Your task to perform on an android device: Open Google Maps Image 0: 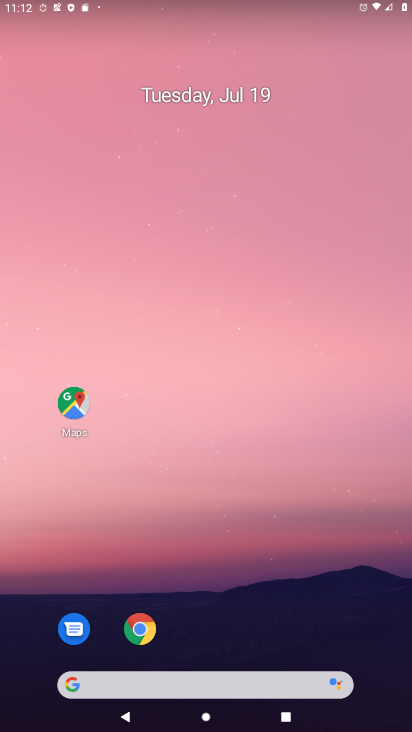
Step 0: drag from (248, 638) to (255, 200)
Your task to perform on an android device: Open Google Maps Image 1: 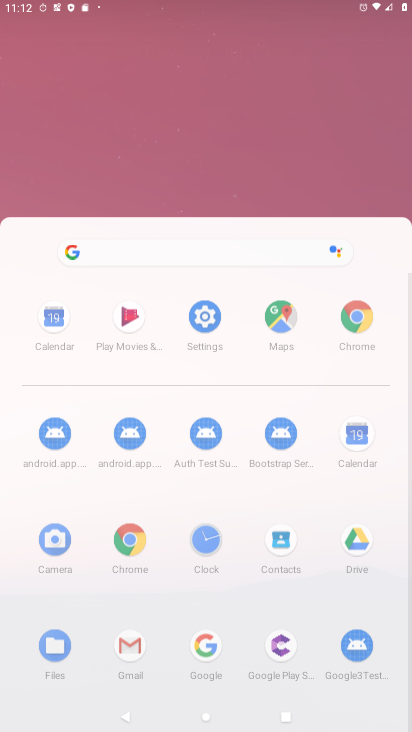
Step 1: drag from (173, 468) to (138, 149)
Your task to perform on an android device: Open Google Maps Image 2: 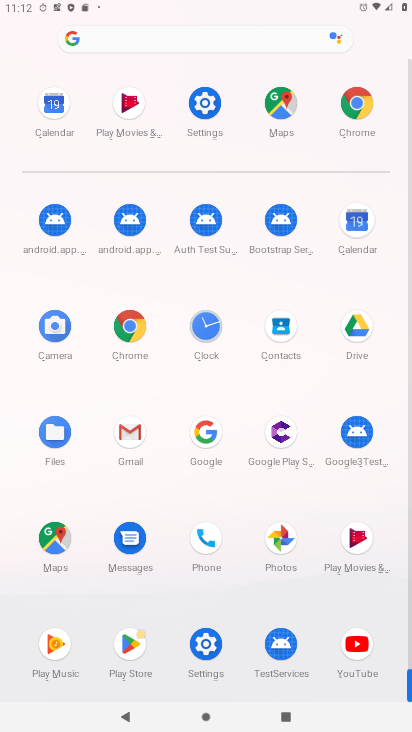
Step 2: click (275, 113)
Your task to perform on an android device: Open Google Maps Image 3: 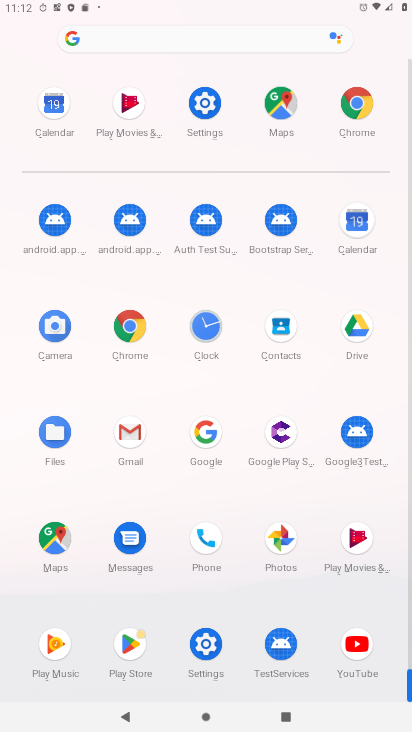
Step 3: click (278, 116)
Your task to perform on an android device: Open Google Maps Image 4: 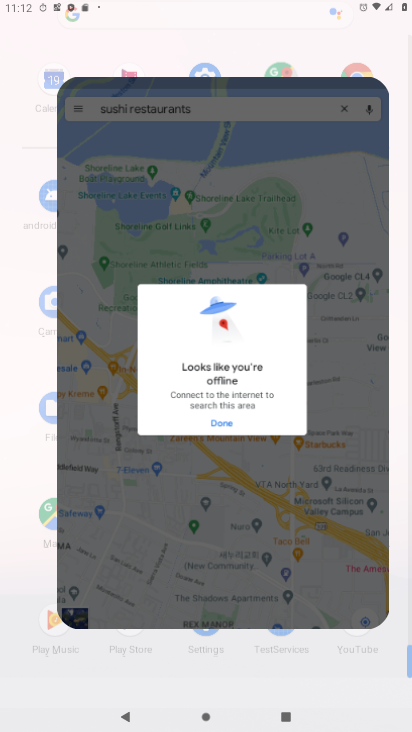
Step 4: click (279, 116)
Your task to perform on an android device: Open Google Maps Image 5: 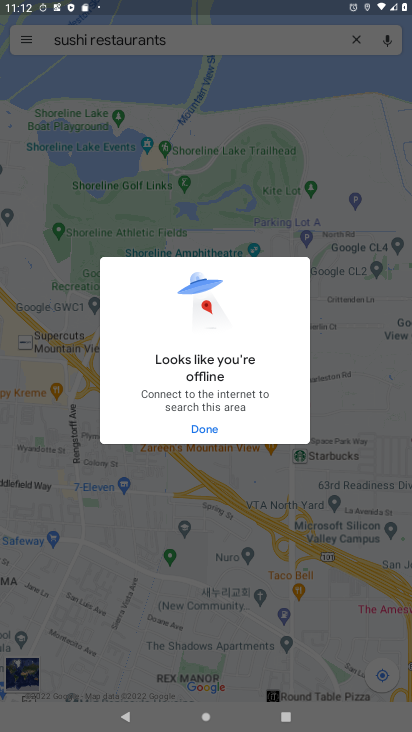
Step 5: click (248, 189)
Your task to perform on an android device: Open Google Maps Image 6: 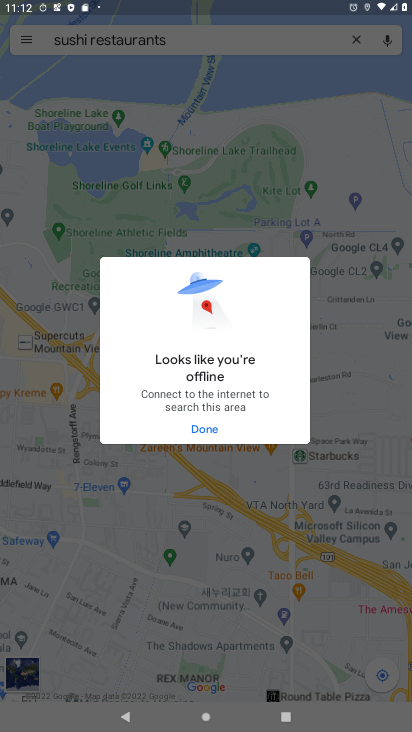
Step 6: click (249, 189)
Your task to perform on an android device: Open Google Maps Image 7: 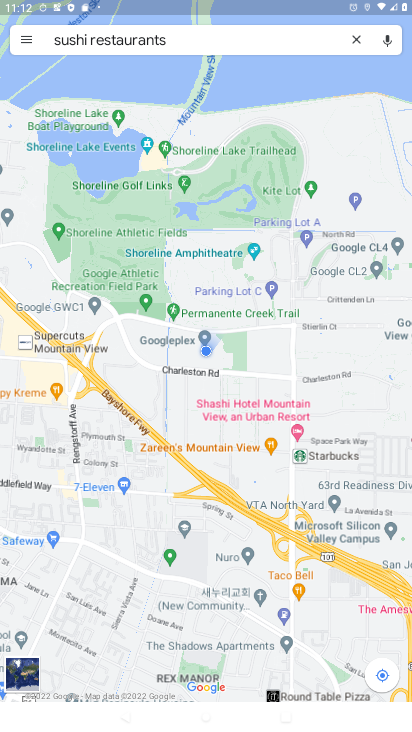
Step 7: click (250, 191)
Your task to perform on an android device: Open Google Maps Image 8: 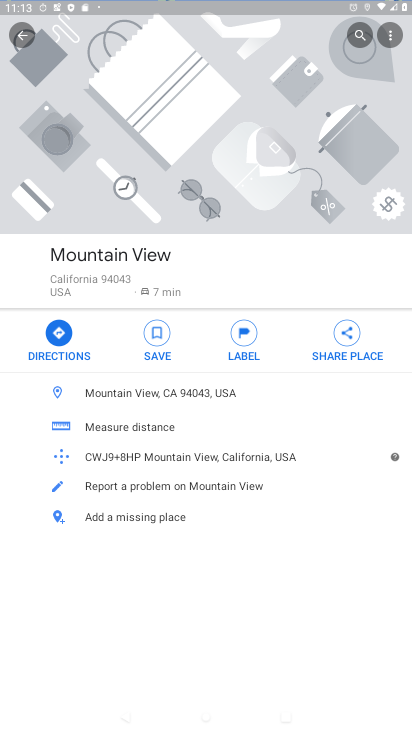
Step 8: task complete